Your task to perform on an android device: Open eBay Image 0: 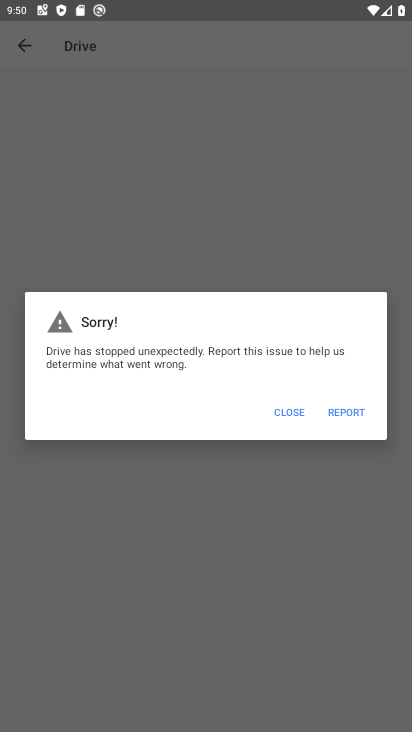
Step 0: press home button
Your task to perform on an android device: Open eBay Image 1: 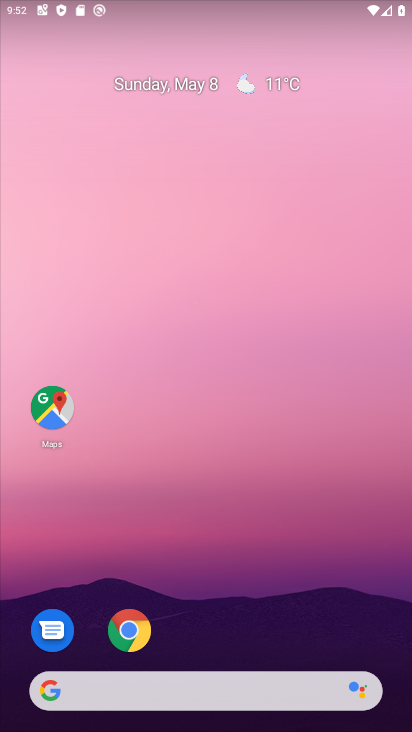
Step 1: drag from (349, 624) to (263, 79)
Your task to perform on an android device: Open eBay Image 2: 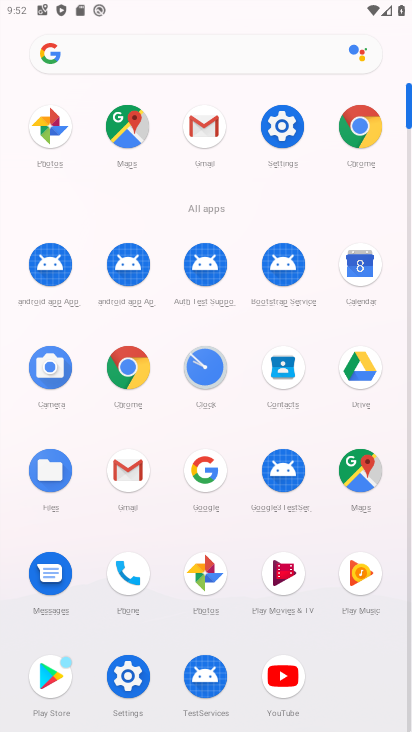
Step 2: click (374, 131)
Your task to perform on an android device: Open eBay Image 3: 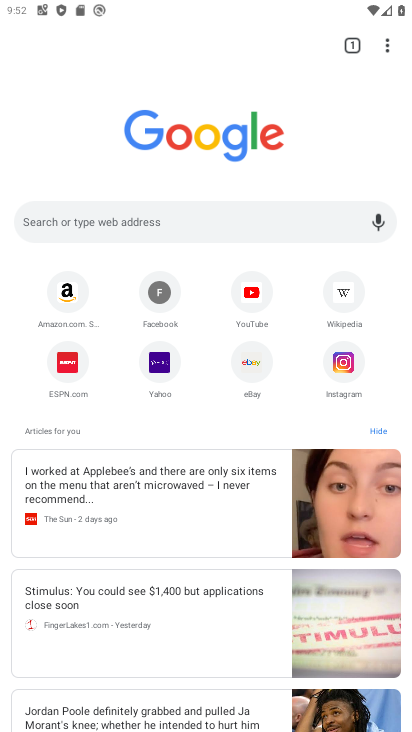
Step 3: click (246, 369)
Your task to perform on an android device: Open eBay Image 4: 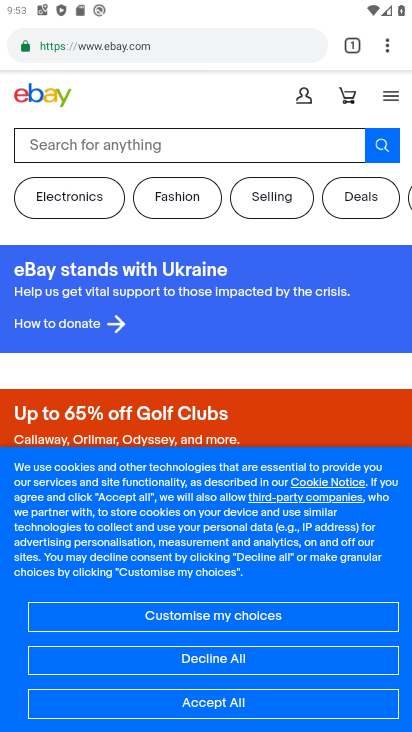
Step 4: task complete